Your task to perform on an android device: Search for seafood restaurants on Google Maps Image 0: 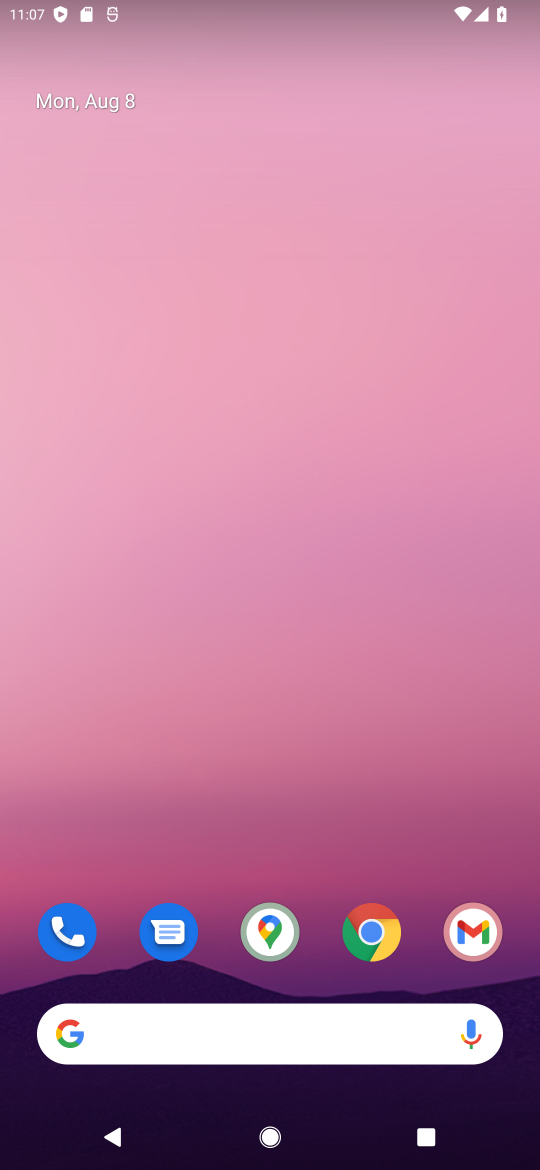
Step 0: click (265, 914)
Your task to perform on an android device: Search for seafood restaurants on Google Maps Image 1: 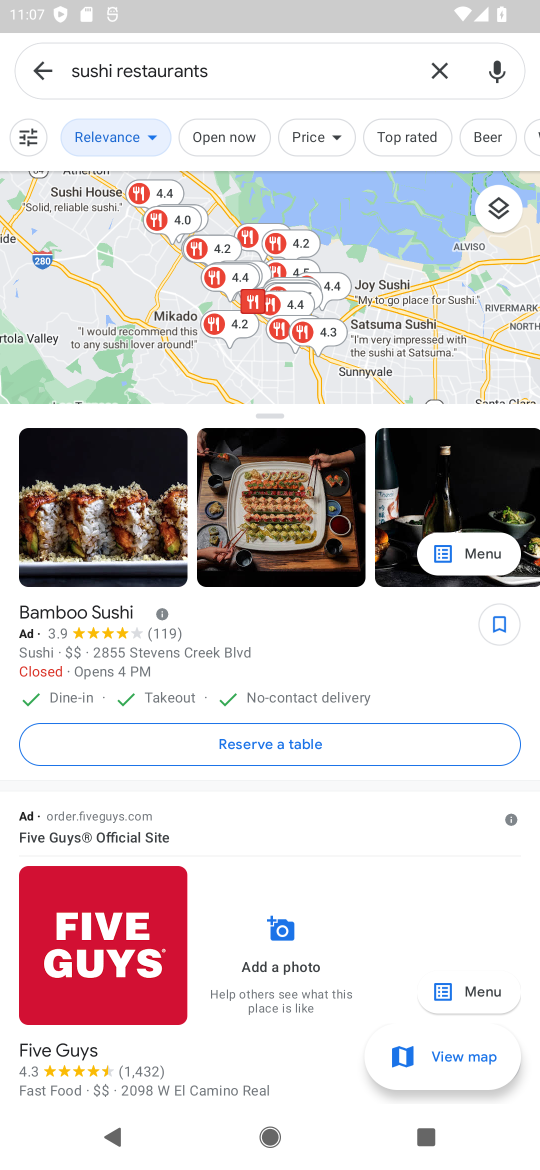
Step 1: click (437, 73)
Your task to perform on an android device: Search for seafood restaurants on Google Maps Image 2: 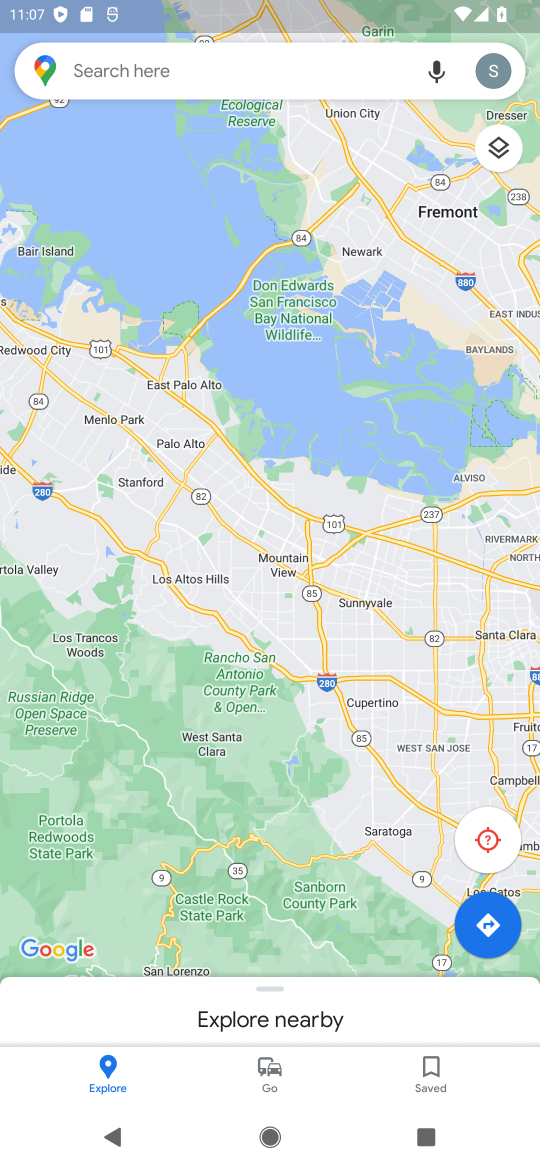
Step 2: click (253, 65)
Your task to perform on an android device: Search for seafood restaurants on Google Maps Image 3: 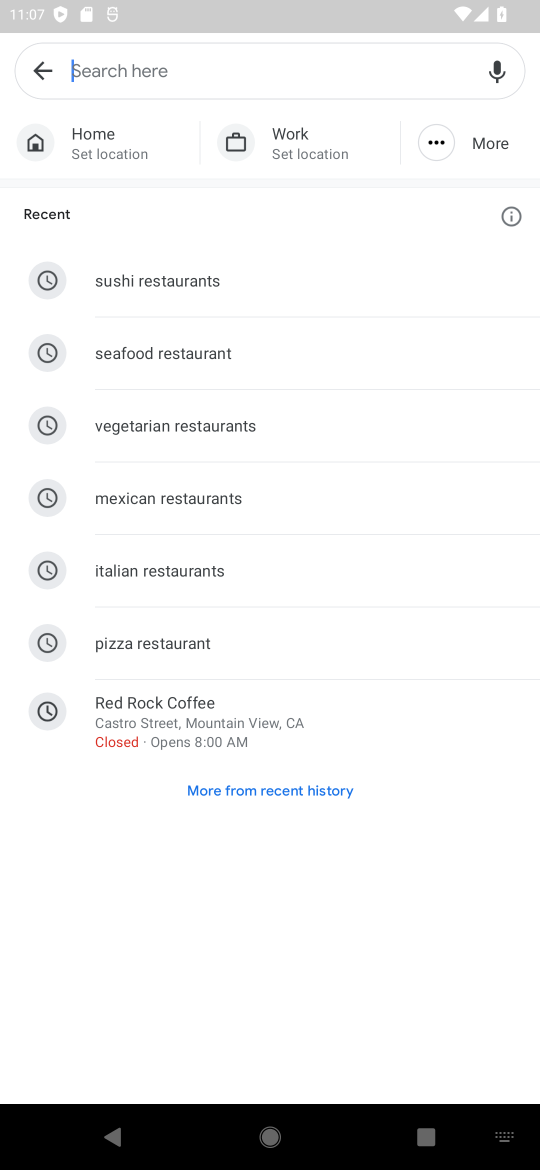
Step 3: click (216, 351)
Your task to perform on an android device: Search for seafood restaurants on Google Maps Image 4: 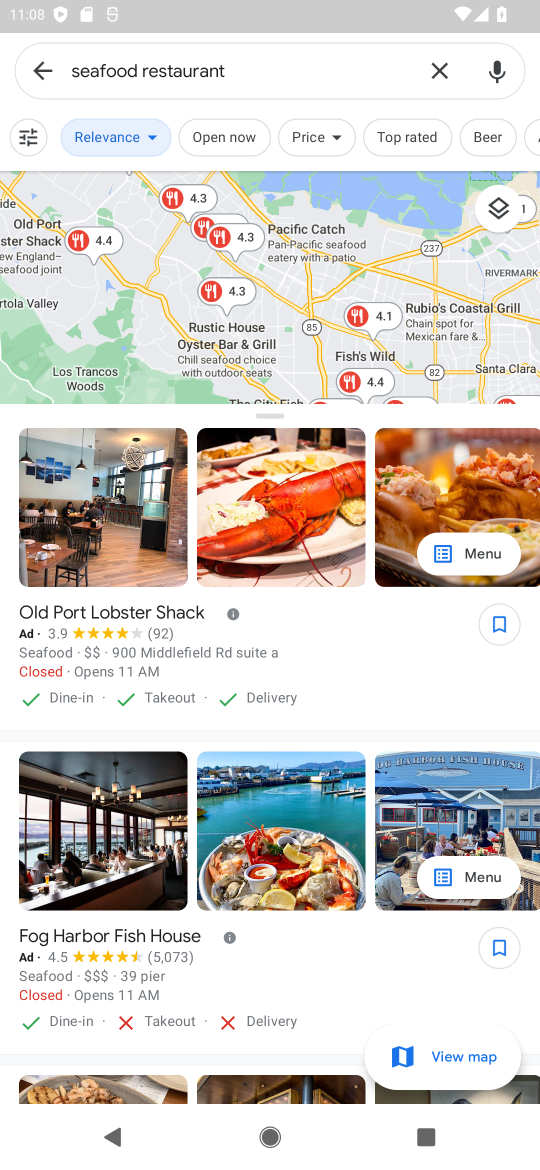
Step 4: task complete